Your task to perform on an android device: visit the assistant section in the google photos Image 0: 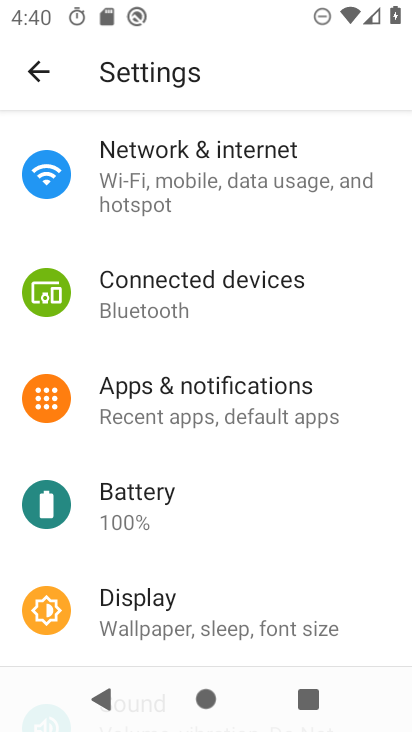
Step 0: press back button
Your task to perform on an android device: visit the assistant section in the google photos Image 1: 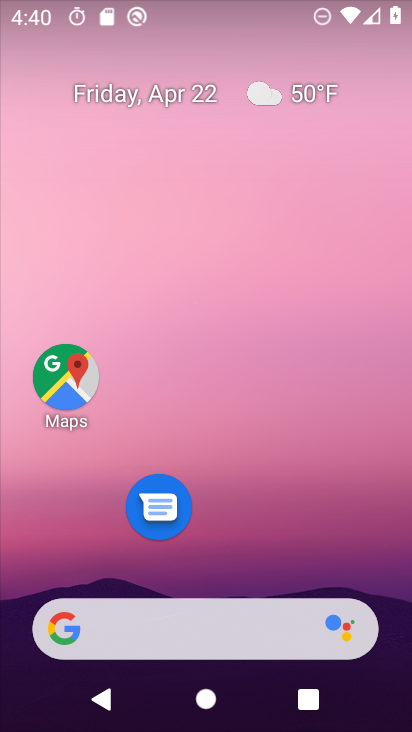
Step 1: drag from (193, 560) to (227, 163)
Your task to perform on an android device: visit the assistant section in the google photos Image 2: 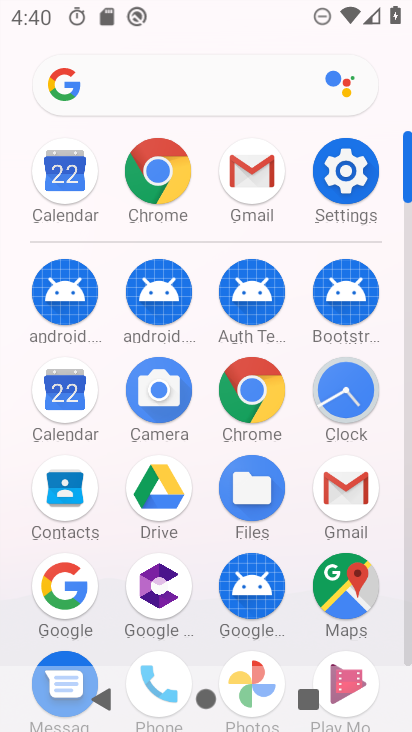
Step 2: drag from (233, 589) to (293, 129)
Your task to perform on an android device: visit the assistant section in the google photos Image 3: 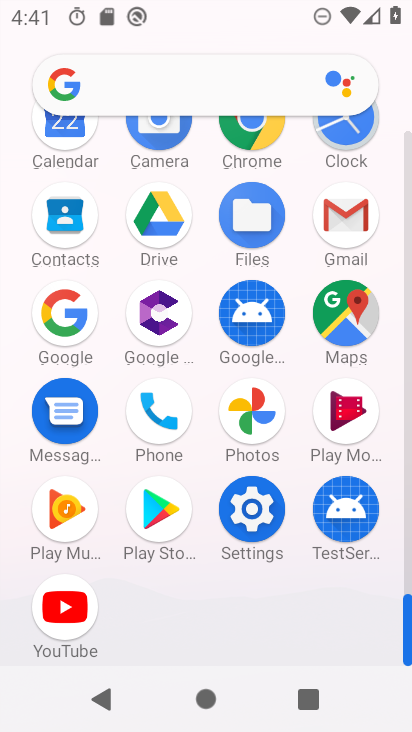
Step 3: click (254, 408)
Your task to perform on an android device: visit the assistant section in the google photos Image 4: 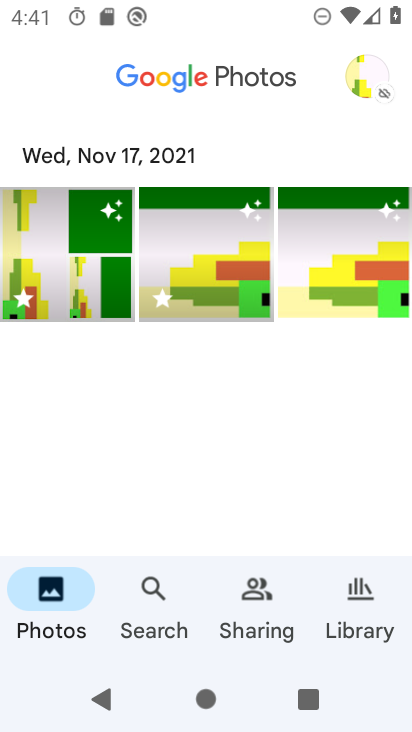
Step 4: click (360, 606)
Your task to perform on an android device: visit the assistant section in the google photos Image 5: 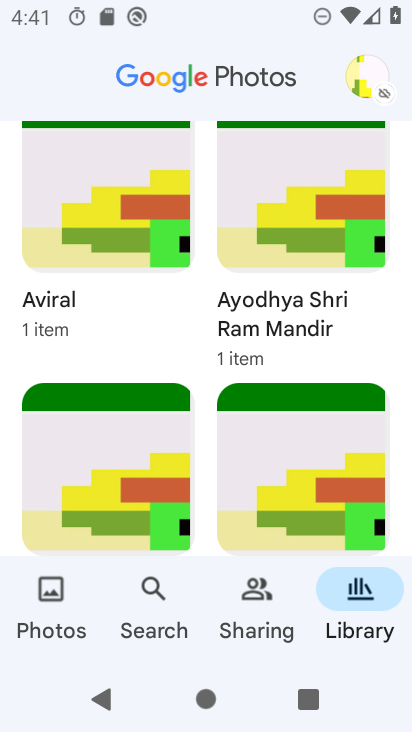
Step 5: drag from (241, 529) to (321, 32)
Your task to perform on an android device: visit the assistant section in the google photos Image 6: 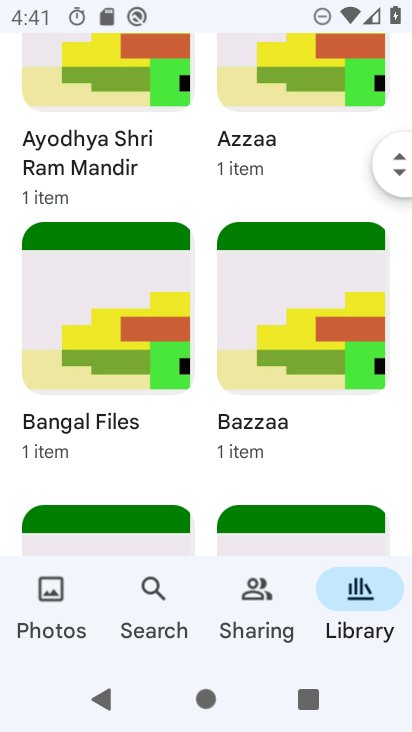
Step 6: click (244, 614)
Your task to perform on an android device: visit the assistant section in the google photos Image 7: 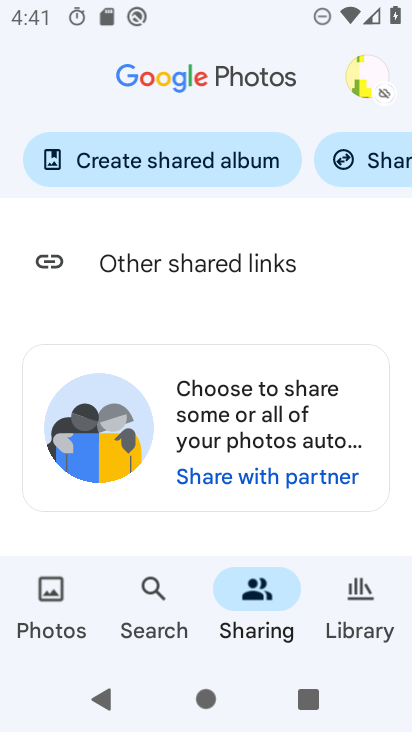
Step 7: drag from (355, 153) to (119, 150)
Your task to perform on an android device: visit the assistant section in the google photos Image 8: 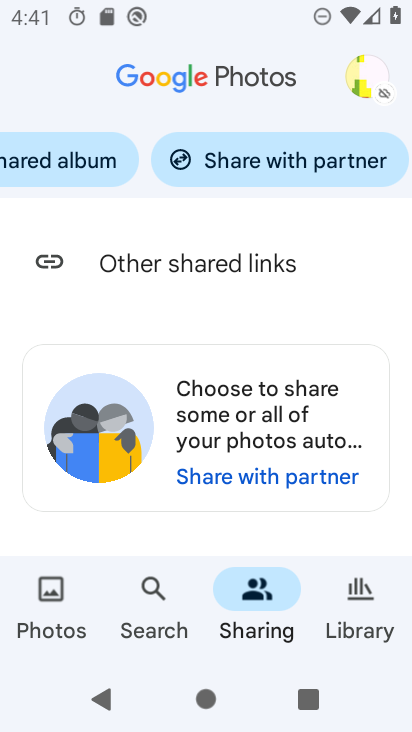
Step 8: drag from (367, 161) to (42, 135)
Your task to perform on an android device: visit the assistant section in the google photos Image 9: 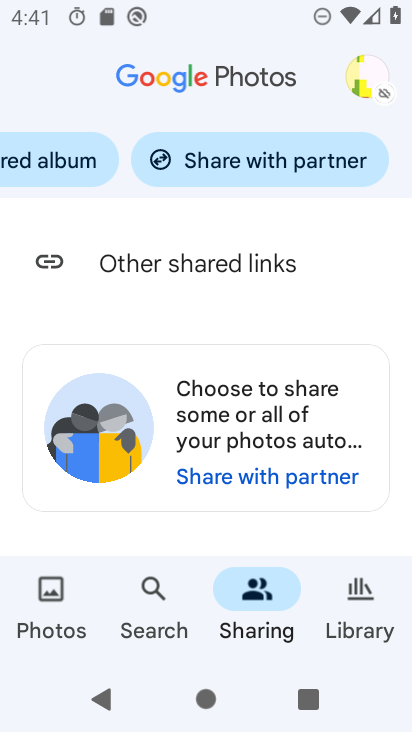
Step 9: click (158, 605)
Your task to perform on an android device: visit the assistant section in the google photos Image 10: 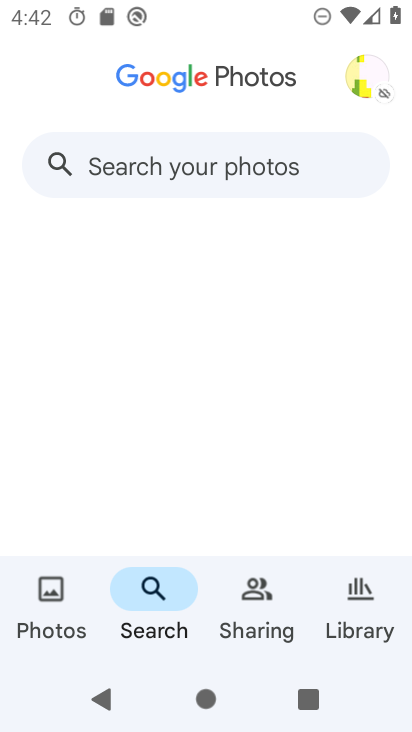
Step 10: click (58, 609)
Your task to perform on an android device: visit the assistant section in the google photos Image 11: 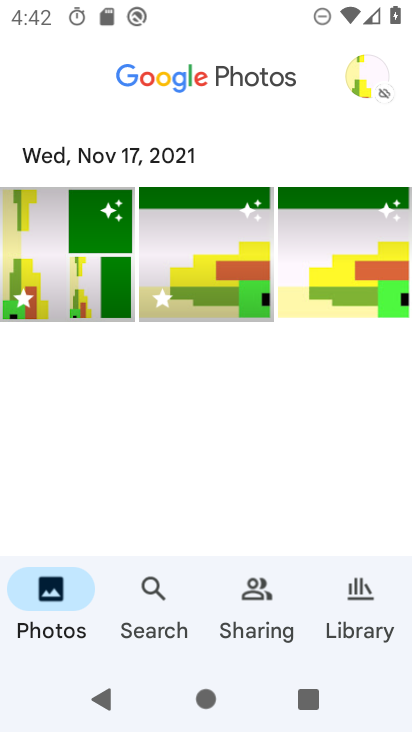
Step 11: click (361, 67)
Your task to perform on an android device: visit the assistant section in the google photos Image 12: 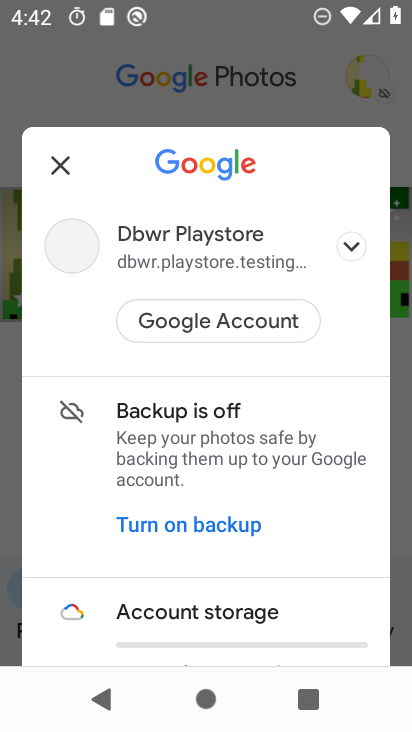
Step 12: task complete